Your task to perform on an android device: turn on location history Image 0: 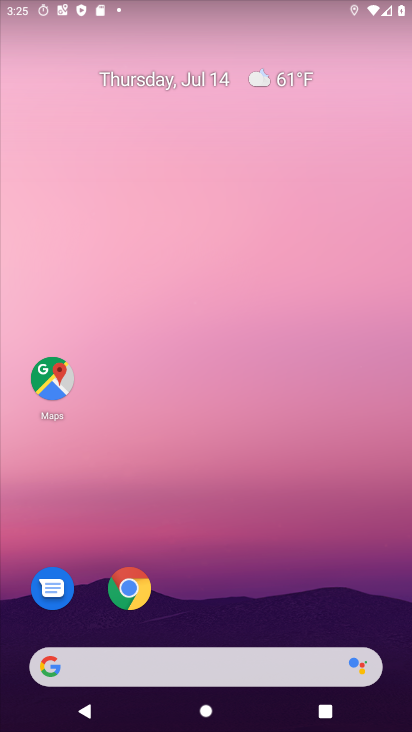
Step 0: drag from (208, 673) to (257, 117)
Your task to perform on an android device: turn on location history Image 1: 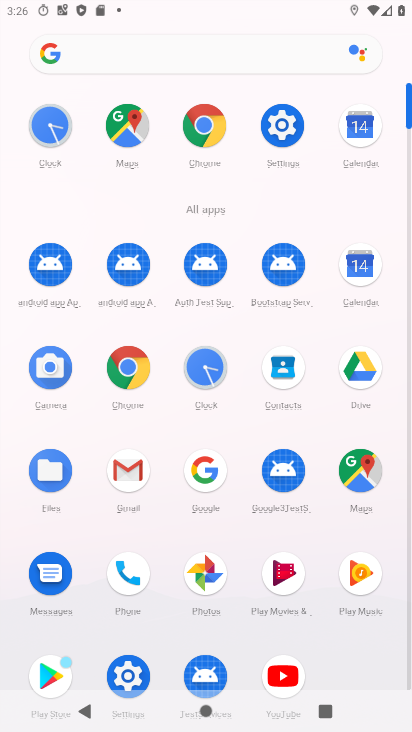
Step 1: click (282, 126)
Your task to perform on an android device: turn on location history Image 2: 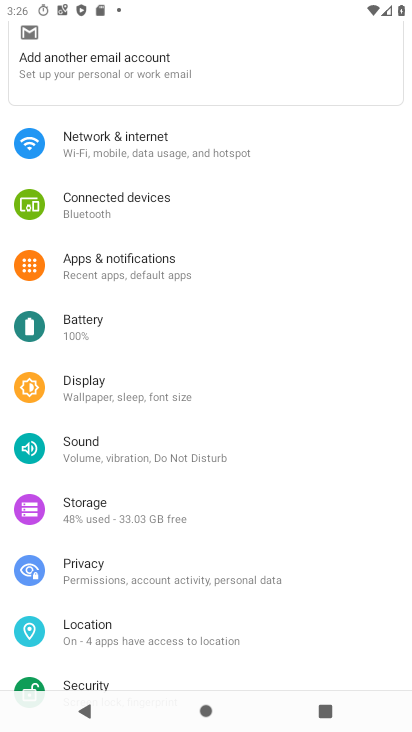
Step 2: click (94, 627)
Your task to perform on an android device: turn on location history Image 3: 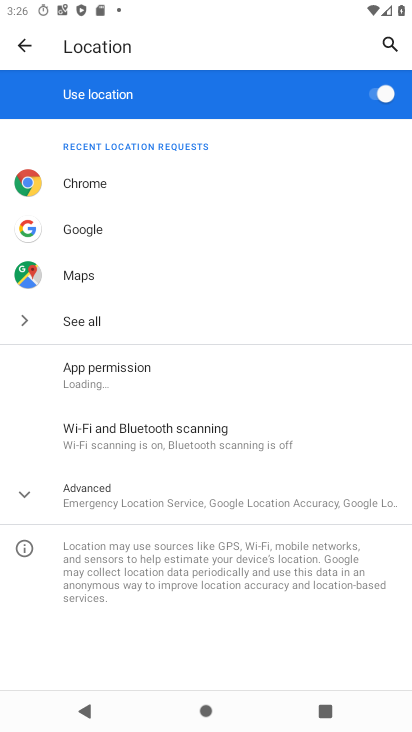
Step 3: click (154, 498)
Your task to perform on an android device: turn on location history Image 4: 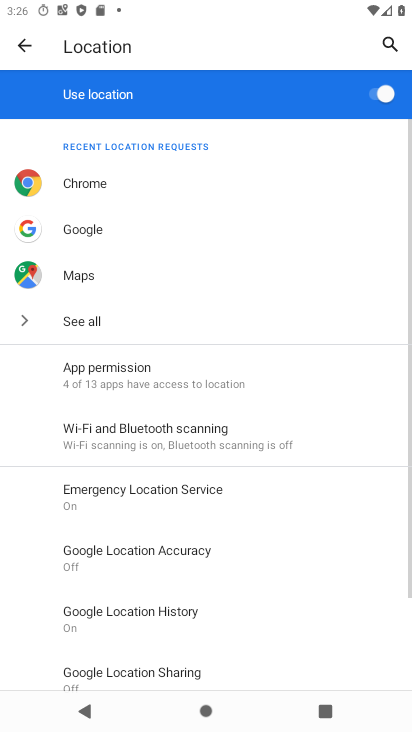
Step 4: task complete